Your task to perform on an android device: Open the map Image 0: 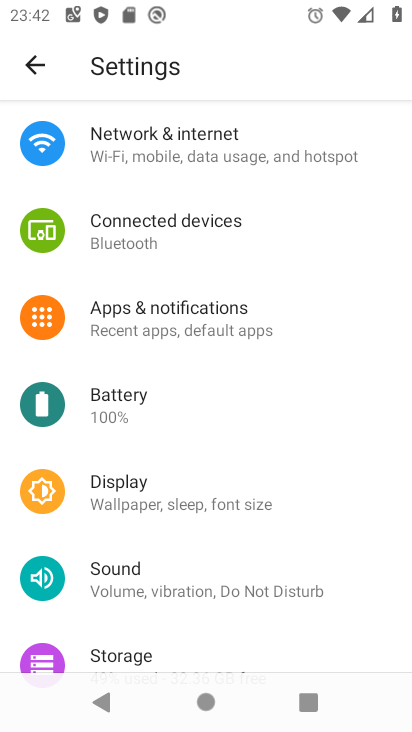
Step 0: press home button
Your task to perform on an android device: Open the map Image 1: 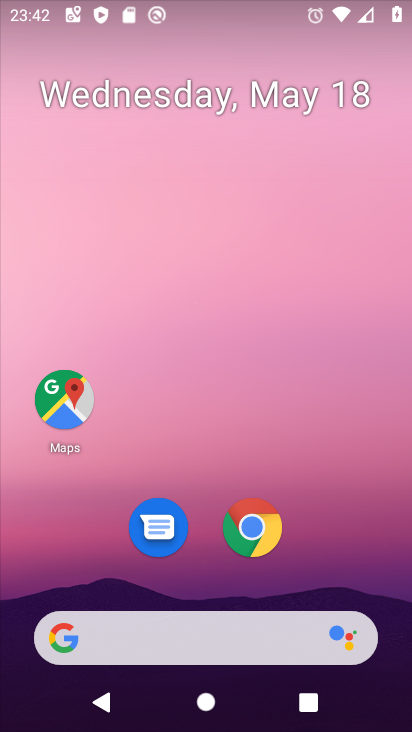
Step 1: click (65, 396)
Your task to perform on an android device: Open the map Image 2: 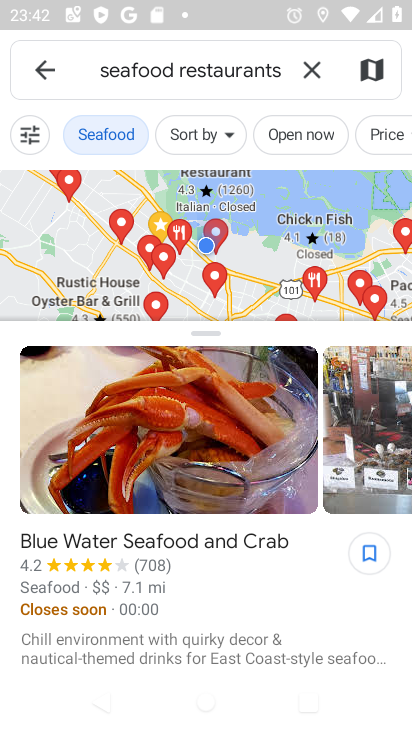
Step 2: task complete